Your task to perform on an android device: check data usage Image 0: 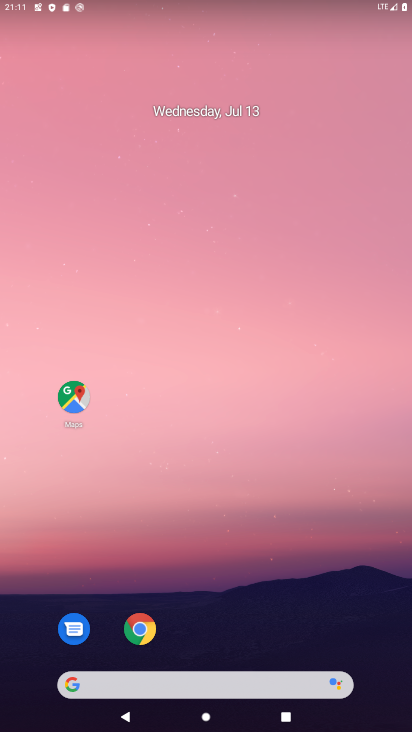
Step 0: drag from (208, 3) to (187, 452)
Your task to perform on an android device: check data usage Image 1: 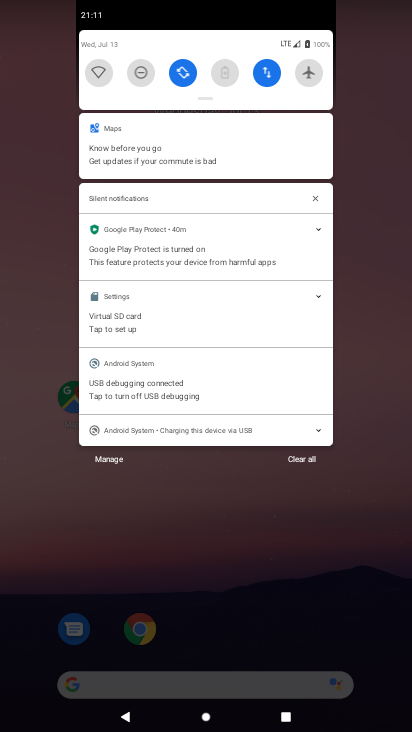
Step 1: click (260, 68)
Your task to perform on an android device: check data usage Image 2: 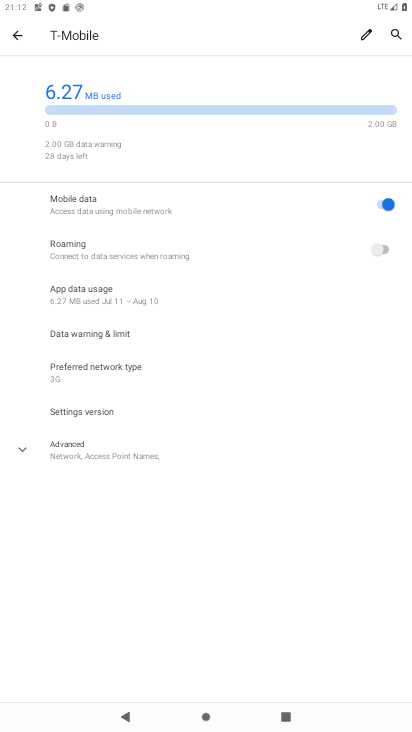
Step 2: task complete